Your task to perform on an android device: Open privacy settings Image 0: 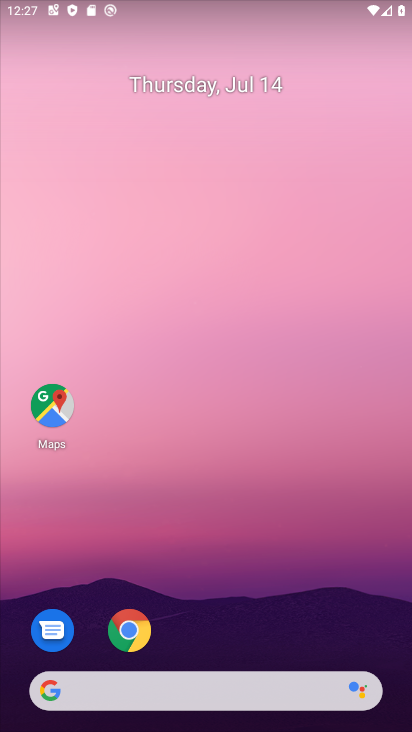
Step 0: drag from (207, 669) to (195, 230)
Your task to perform on an android device: Open privacy settings Image 1: 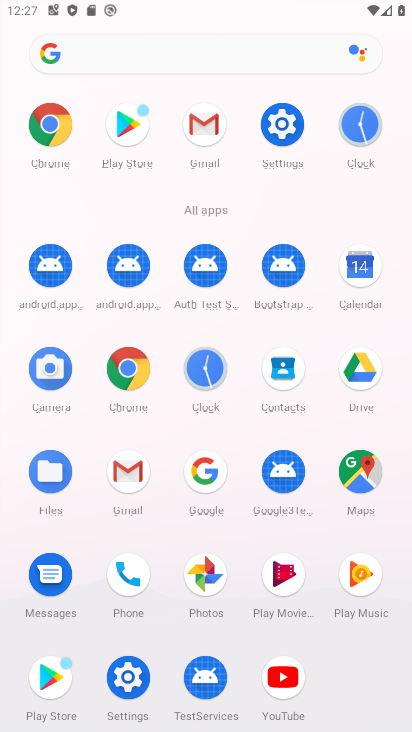
Step 1: click (275, 120)
Your task to perform on an android device: Open privacy settings Image 2: 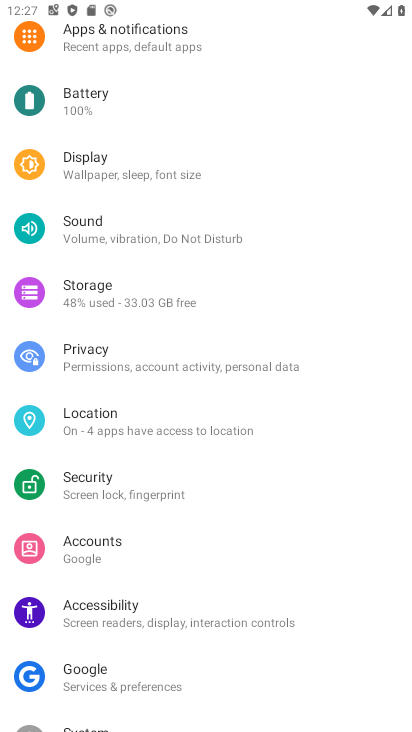
Step 2: click (111, 363)
Your task to perform on an android device: Open privacy settings Image 3: 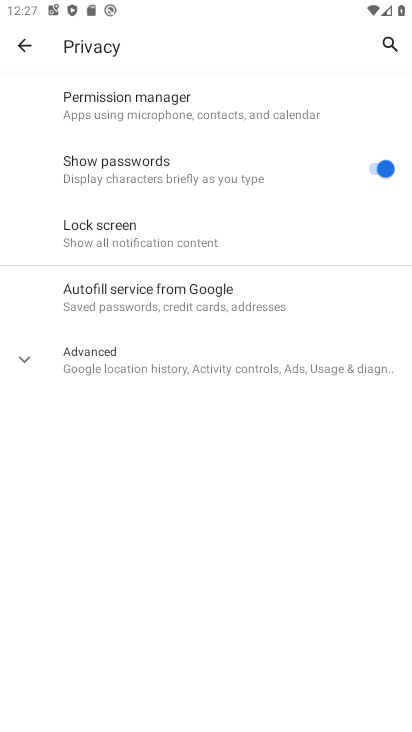
Step 3: click (94, 370)
Your task to perform on an android device: Open privacy settings Image 4: 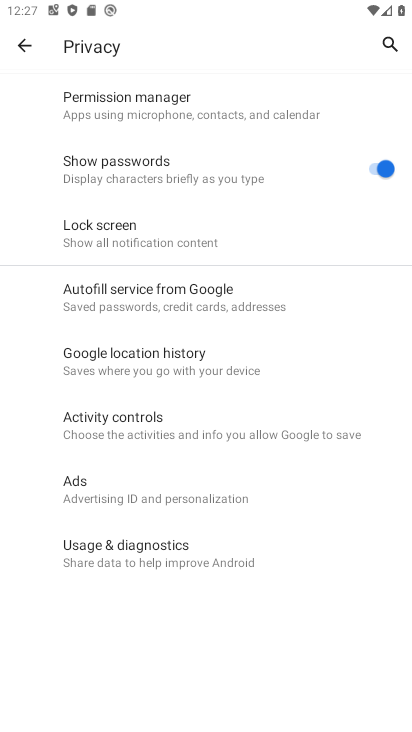
Step 4: task complete